Your task to perform on an android device: allow notifications from all sites in the chrome app Image 0: 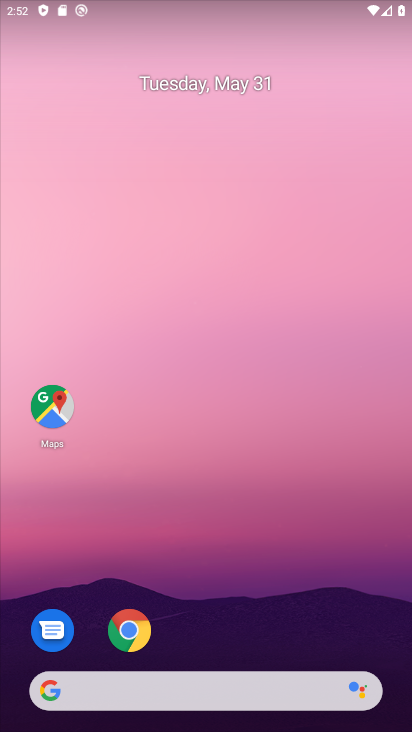
Step 0: click (130, 625)
Your task to perform on an android device: allow notifications from all sites in the chrome app Image 1: 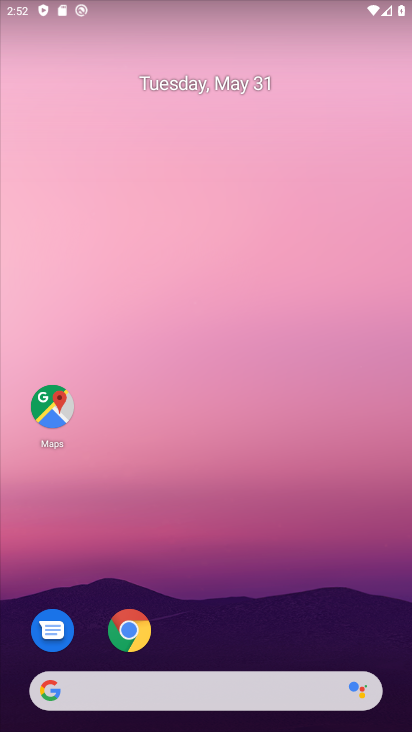
Step 1: click (130, 625)
Your task to perform on an android device: allow notifications from all sites in the chrome app Image 2: 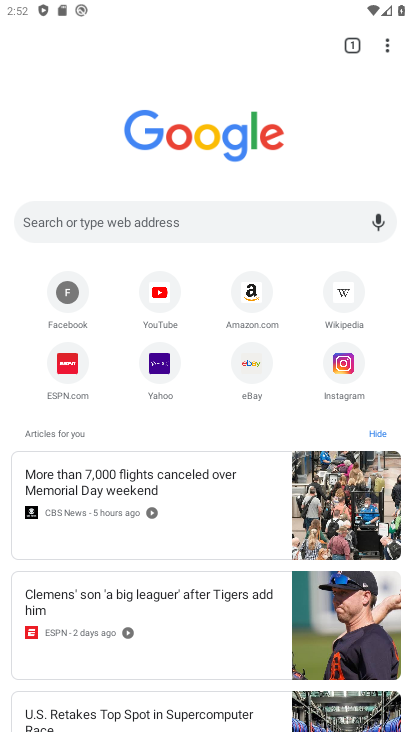
Step 2: click (390, 43)
Your task to perform on an android device: allow notifications from all sites in the chrome app Image 3: 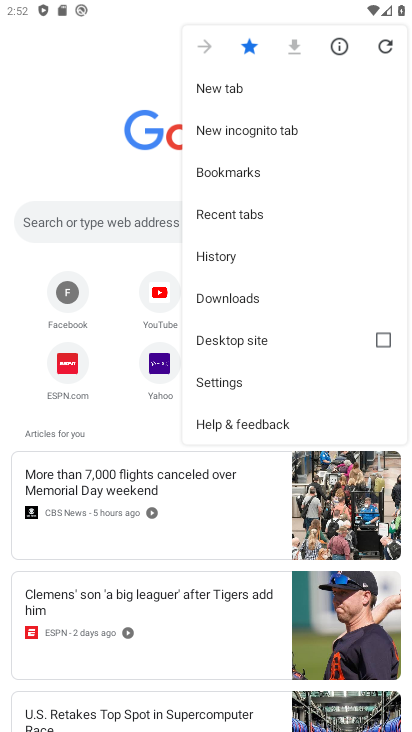
Step 3: click (223, 376)
Your task to perform on an android device: allow notifications from all sites in the chrome app Image 4: 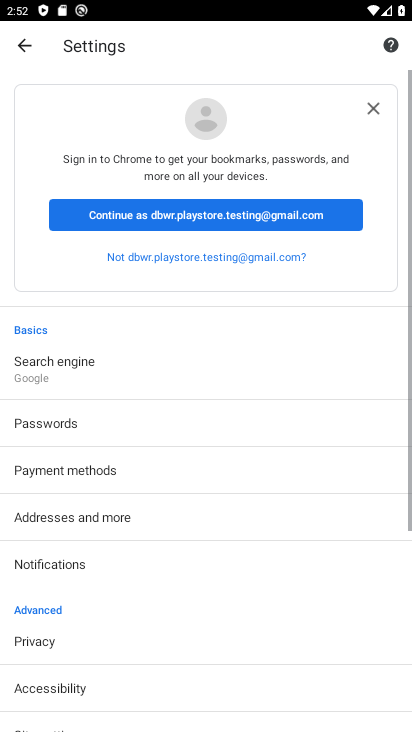
Step 4: drag from (160, 614) to (382, 47)
Your task to perform on an android device: allow notifications from all sites in the chrome app Image 5: 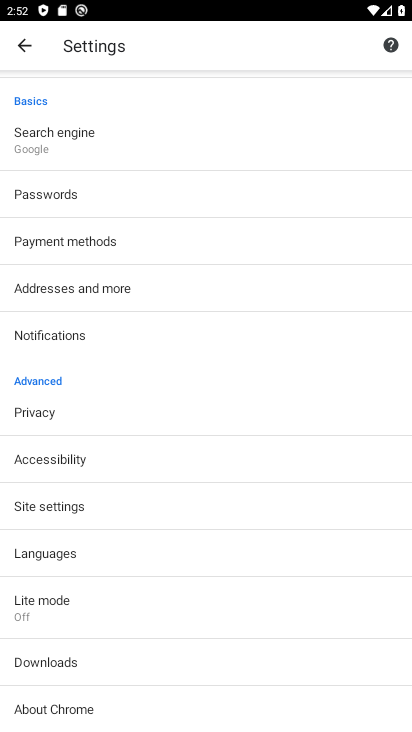
Step 5: click (29, 502)
Your task to perform on an android device: allow notifications from all sites in the chrome app Image 6: 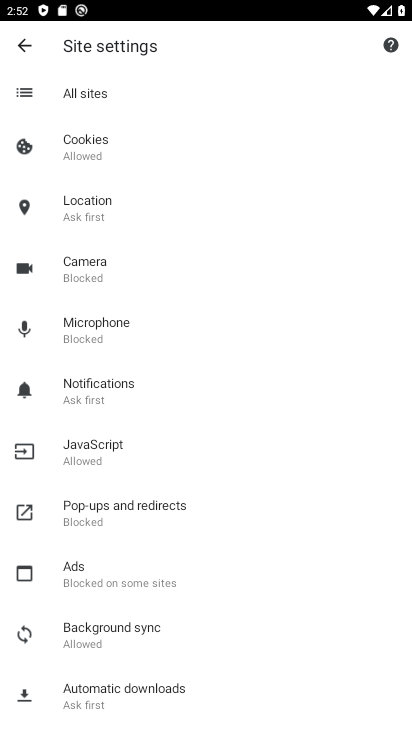
Step 6: click (156, 93)
Your task to perform on an android device: allow notifications from all sites in the chrome app Image 7: 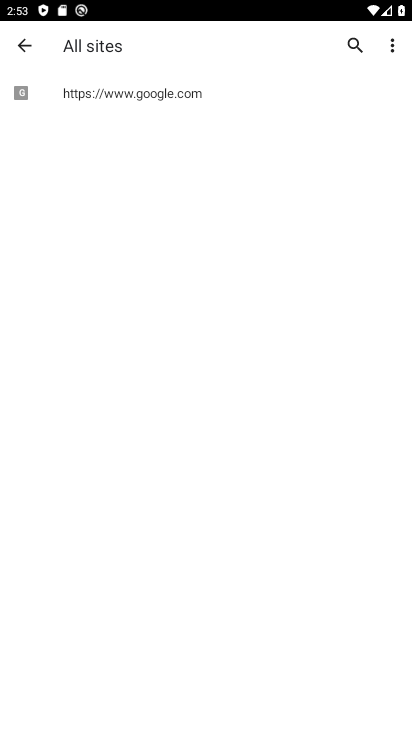
Step 7: click (28, 44)
Your task to perform on an android device: allow notifications from all sites in the chrome app Image 8: 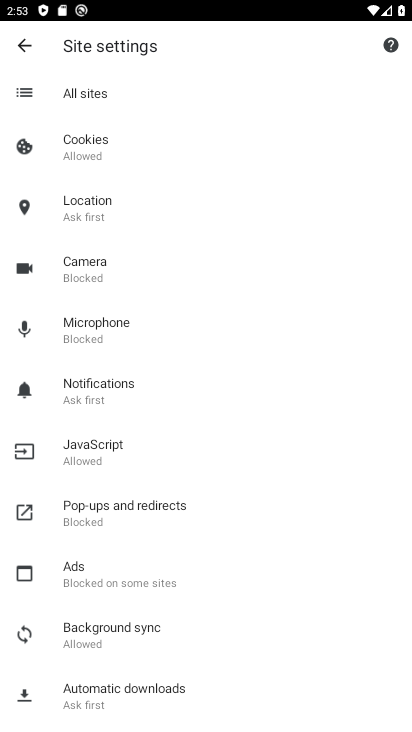
Step 8: drag from (98, 684) to (214, 359)
Your task to perform on an android device: allow notifications from all sites in the chrome app Image 9: 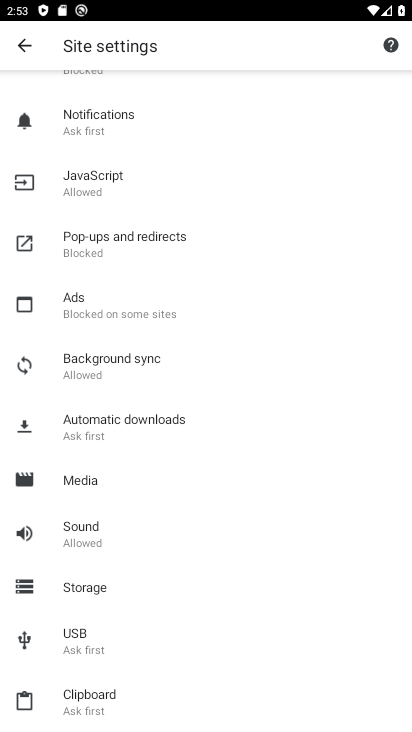
Step 9: drag from (102, 479) to (226, 209)
Your task to perform on an android device: allow notifications from all sites in the chrome app Image 10: 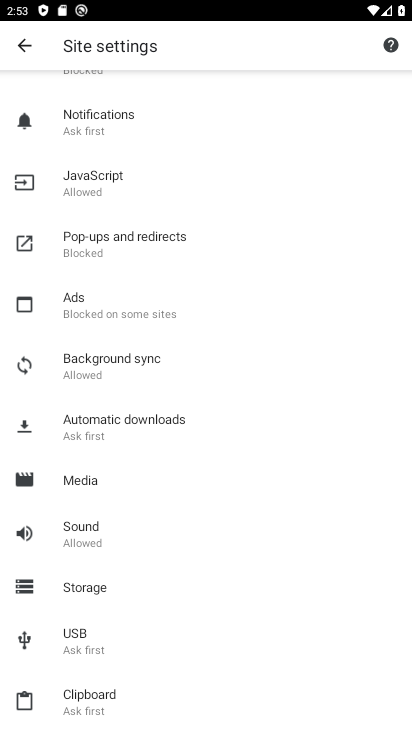
Step 10: drag from (226, 209) to (184, 582)
Your task to perform on an android device: allow notifications from all sites in the chrome app Image 11: 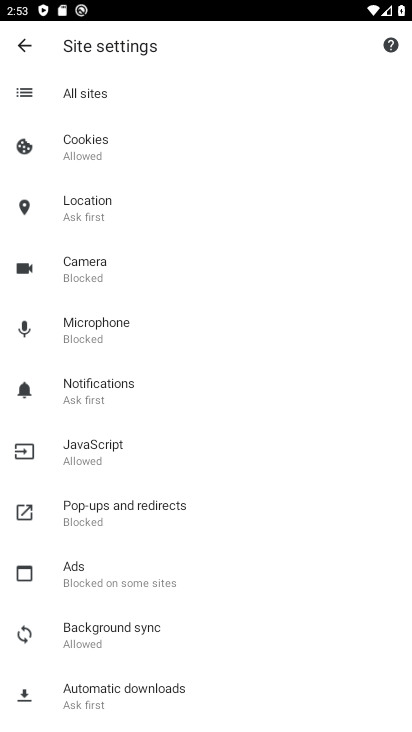
Step 11: click (149, 402)
Your task to perform on an android device: allow notifications from all sites in the chrome app Image 12: 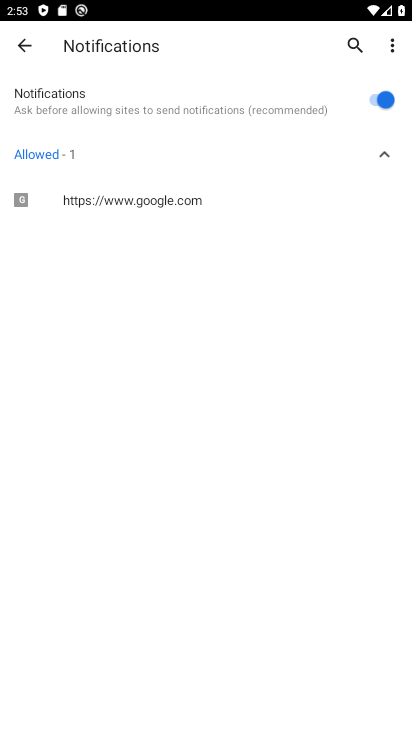
Step 12: task complete